Your task to perform on an android device: add a label to a message in the gmail app Image 0: 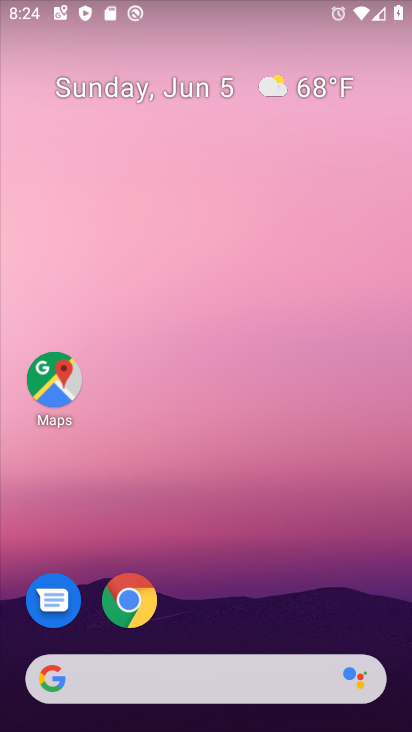
Step 0: drag from (370, 614) to (216, 51)
Your task to perform on an android device: add a label to a message in the gmail app Image 1: 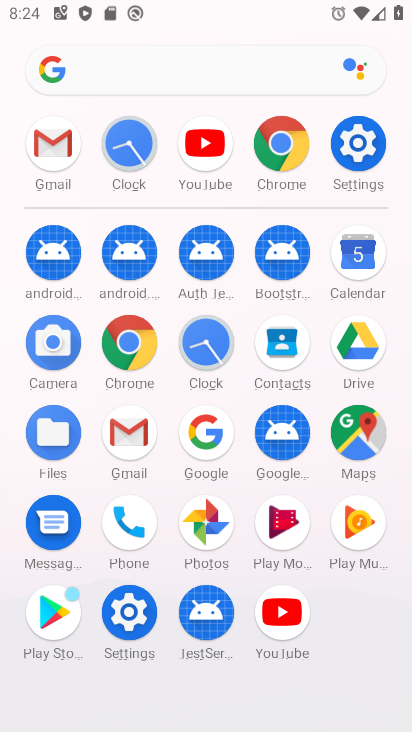
Step 1: click (134, 432)
Your task to perform on an android device: add a label to a message in the gmail app Image 2: 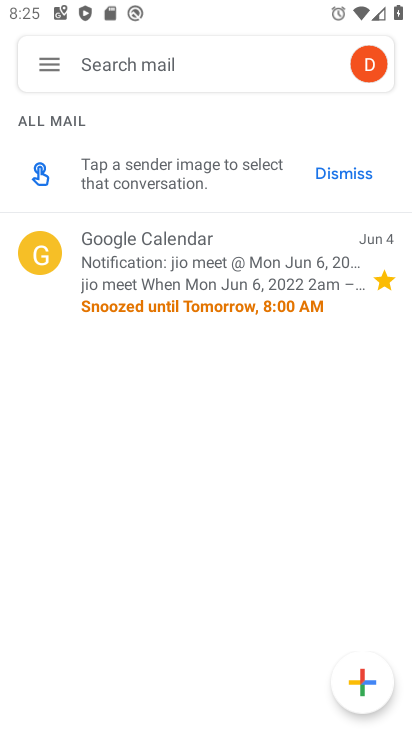
Step 2: task complete